Your task to perform on an android device: show emergency info Image 0: 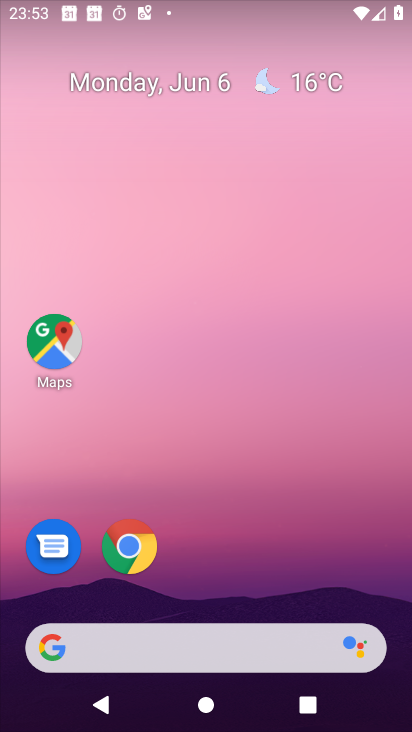
Step 0: drag from (209, 583) to (307, 116)
Your task to perform on an android device: show emergency info Image 1: 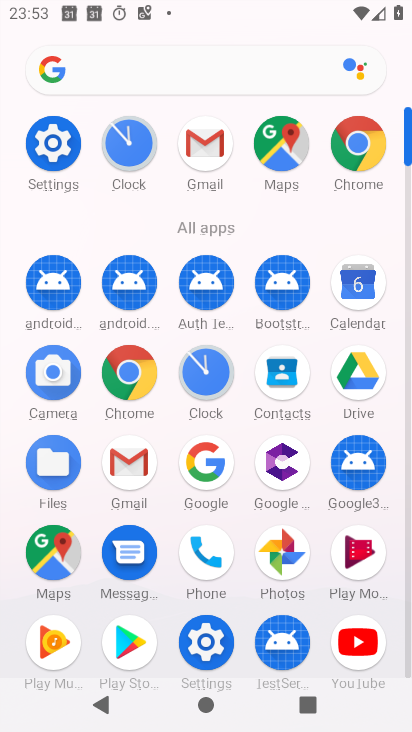
Step 1: click (49, 167)
Your task to perform on an android device: show emergency info Image 2: 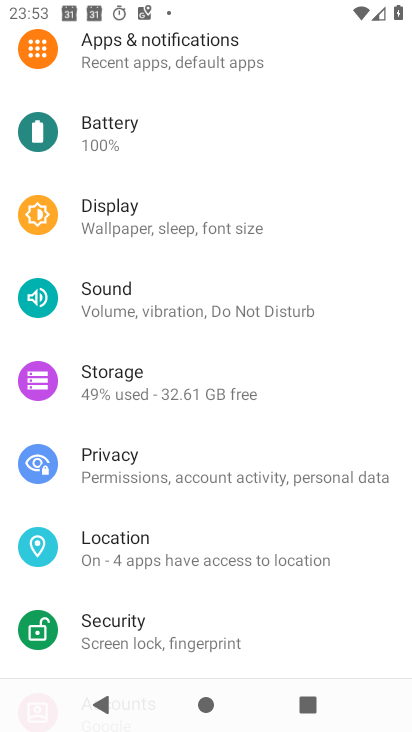
Step 2: drag from (194, 659) to (283, 189)
Your task to perform on an android device: show emergency info Image 3: 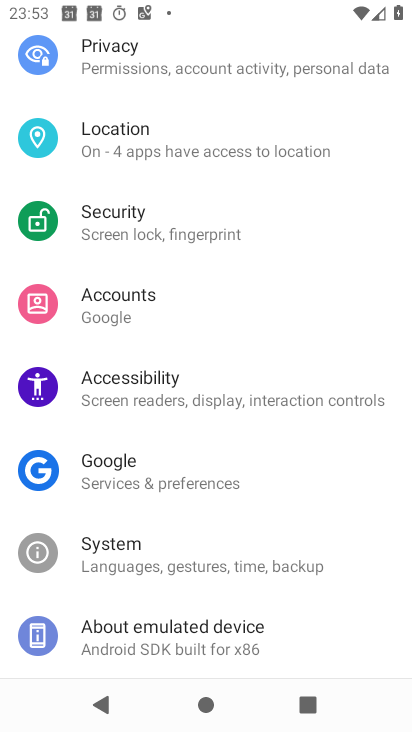
Step 3: drag from (207, 596) to (252, 244)
Your task to perform on an android device: show emergency info Image 4: 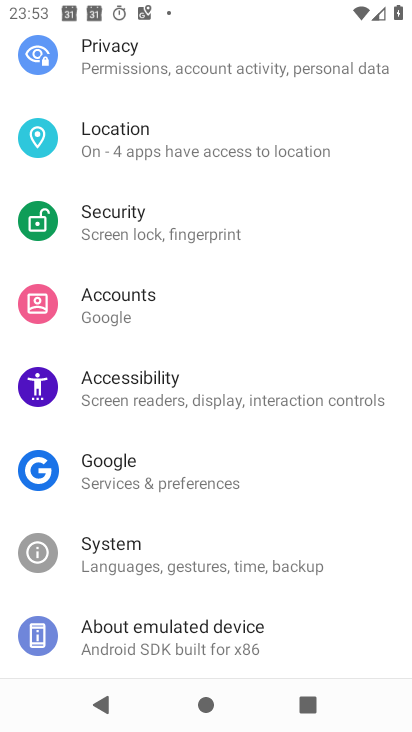
Step 4: click (166, 646)
Your task to perform on an android device: show emergency info Image 5: 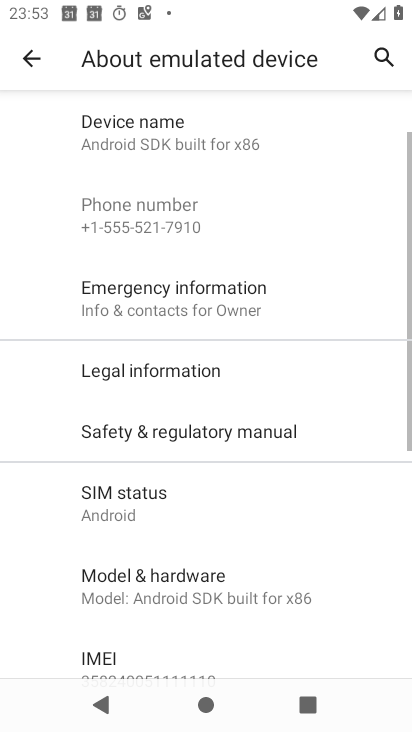
Step 5: click (195, 305)
Your task to perform on an android device: show emergency info Image 6: 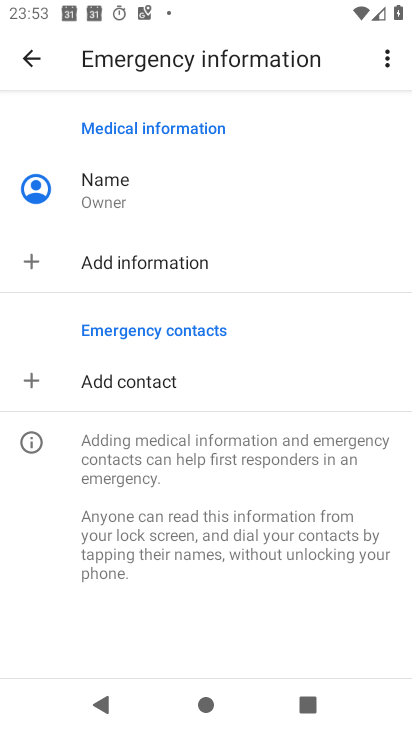
Step 6: task complete